Your task to perform on an android device: all mails in gmail Image 0: 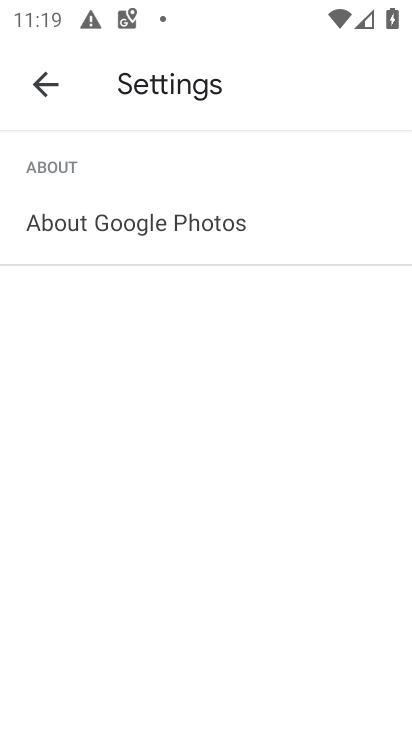
Step 0: press home button
Your task to perform on an android device: all mails in gmail Image 1: 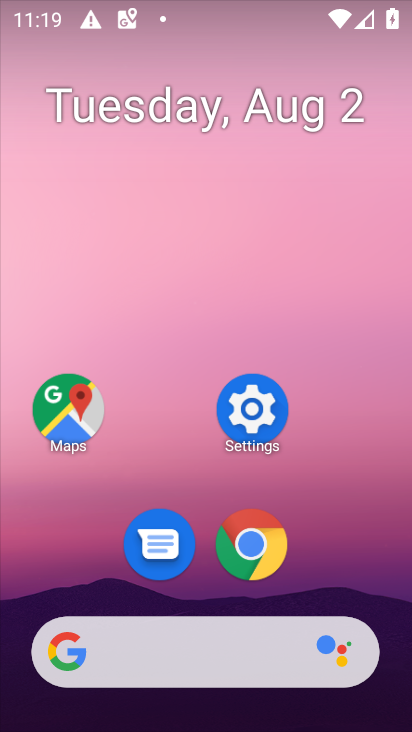
Step 1: drag from (182, 675) to (330, 208)
Your task to perform on an android device: all mails in gmail Image 2: 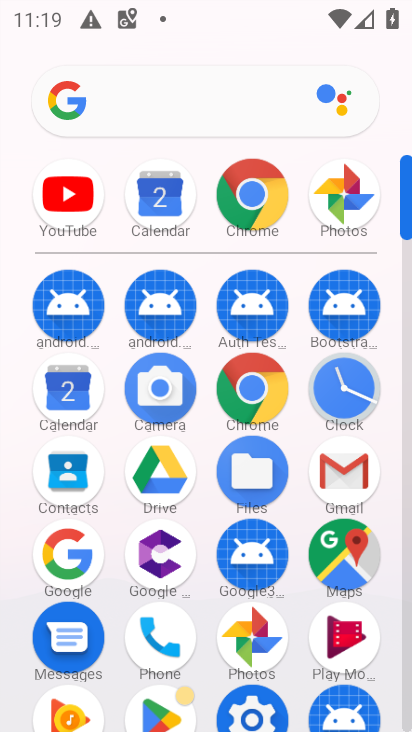
Step 2: click (347, 477)
Your task to perform on an android device: all mails in gmail Image 3: 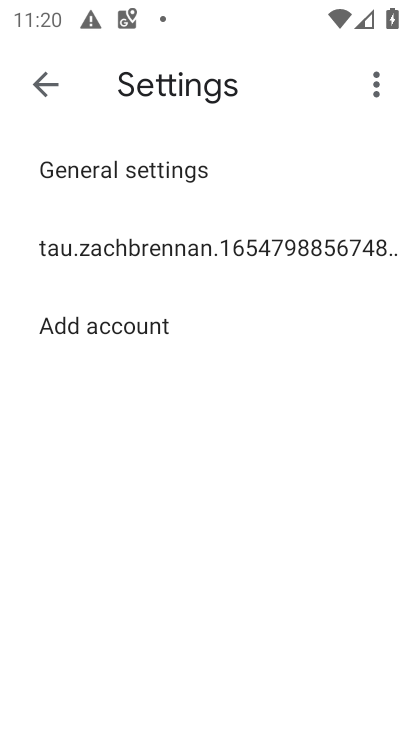
Step 3: click (55, 92)
Your task to perform on an android device: all mails in gmail Image 4: 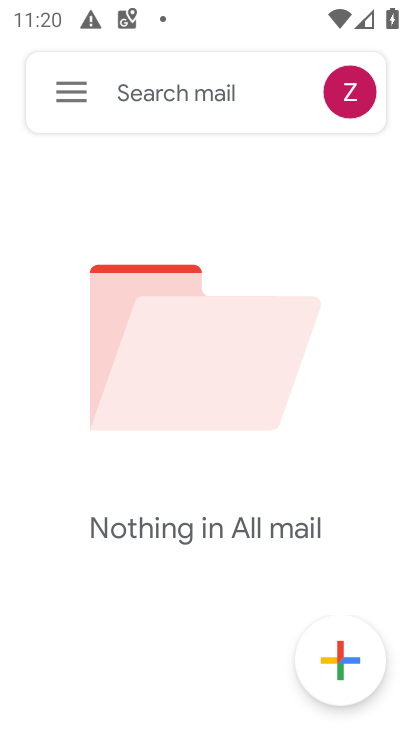
Step 4: click (84, 86)
Your task to perform on an android device: all mails in gmail Image 5: 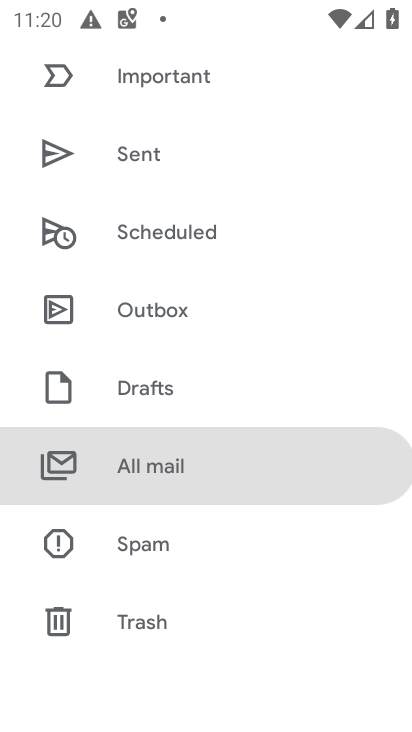
Step 5: click (183, 467)
Your task to perform on an android device: all mails in gmail Image 6: 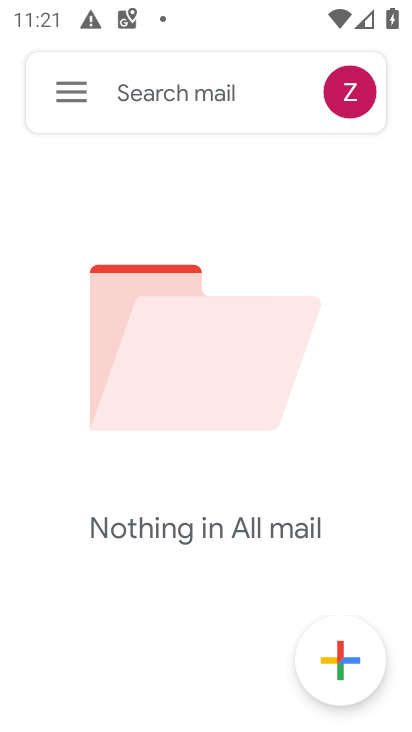
Step 6: task complete